Your task to perform on an android device: change keyboard looks Image 0: 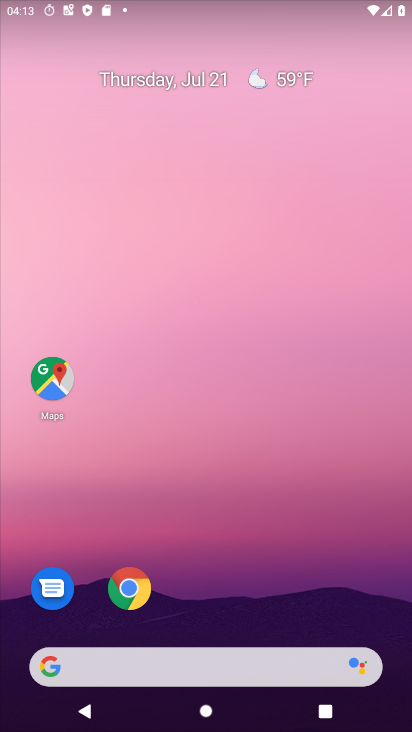
Step 0: drag from (234, 630) to (249, 129)
Your task to perform on an android device: change keyboard looks Image 1: 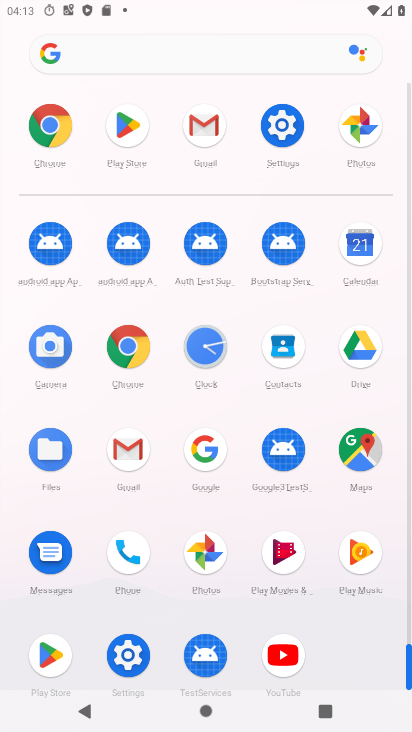
Step 1: click (124, 658)
Your task to perform on an android device: change keyboard looks Image 2: 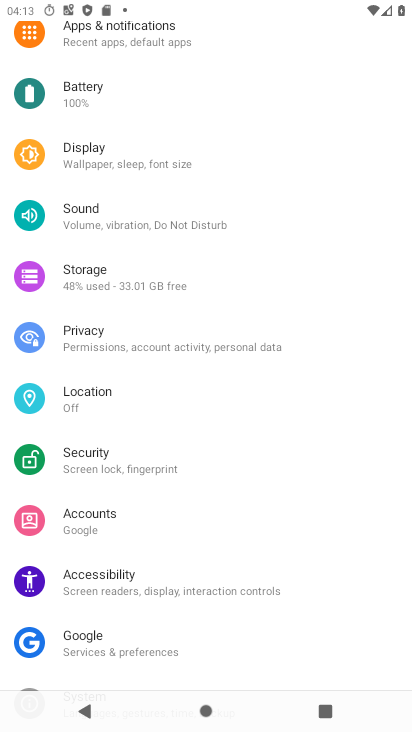
Step 2: drag from (141, 598) to (153, 347)
Your task to perform on an android device: change keyboard looks Image 3: 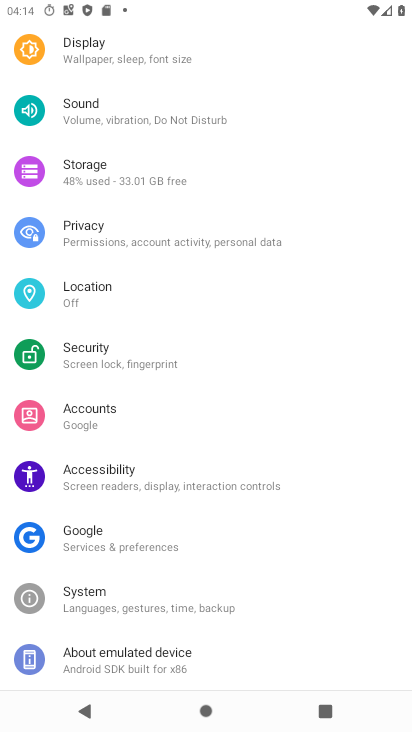
Step 3: click (92, 605)
Your task to perform on an android device: change keyboard looks Image 4: 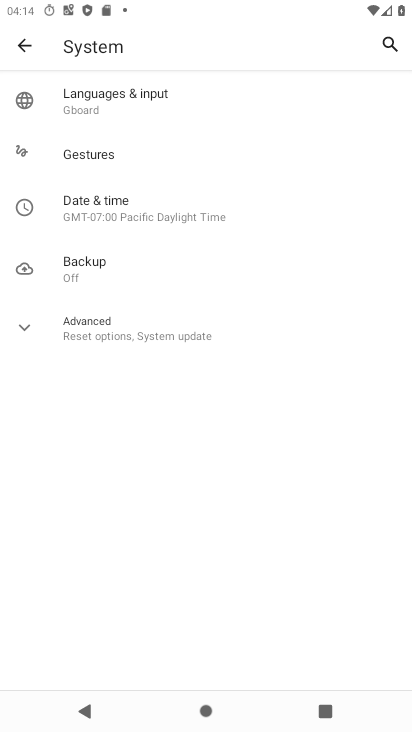
Step 4: click (126, 106)
Your task to perform on an android device: change keyboard looks Image 5: 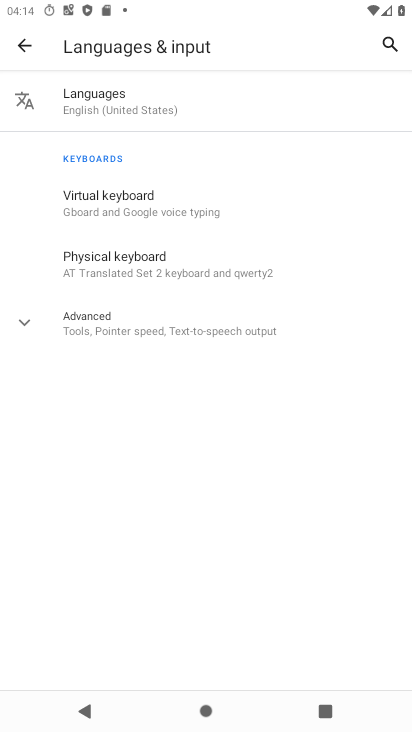
Step 5: click (128, 213)
Your task to perform on an android device: change keyboard looks Image 6: 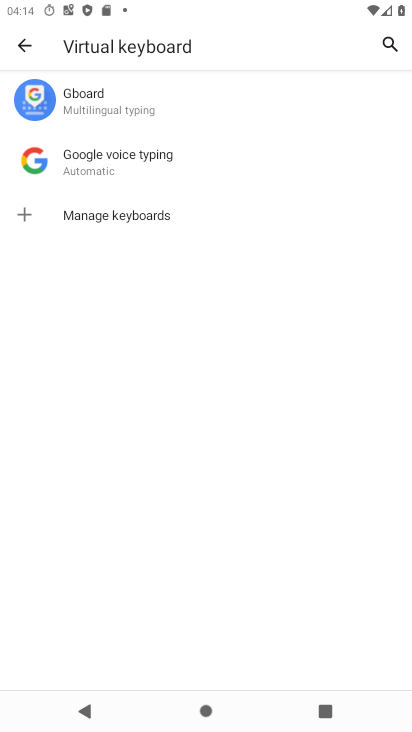
Step 6: click (116, 95)
Your task to perform on an android device: change keyboard looks Image 7: 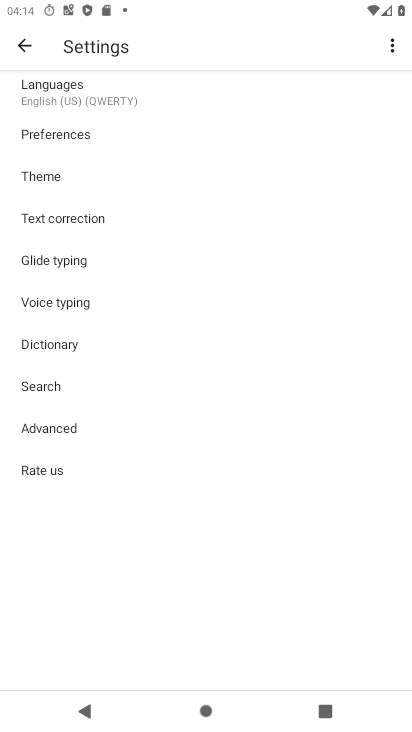
Step 7: click (46, 182)
Your task to perform on an android device: change keyboard looks Image 8: 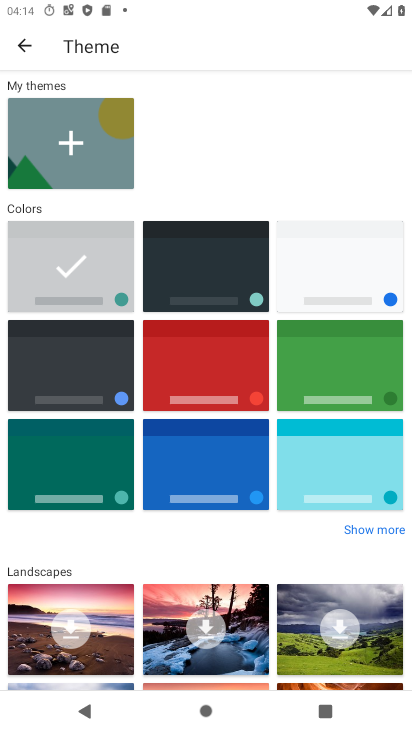
Step 8: click (201, 305)
Your task to perform on an android device: change keyboard looks Image 9: 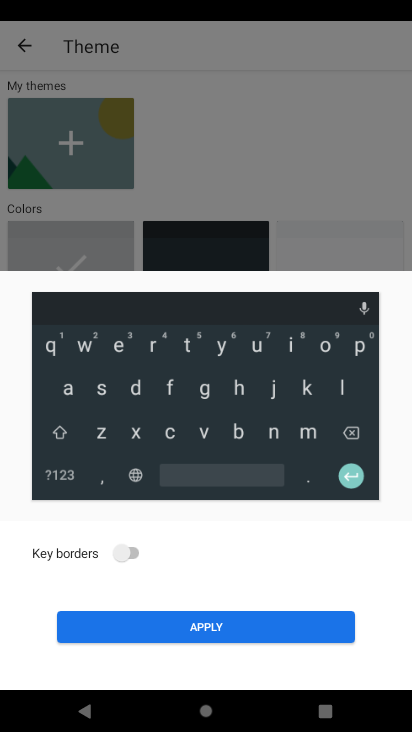
Step 9: click (253, 624)
Your task to perform on an android device: change keyboard looks Image 10: 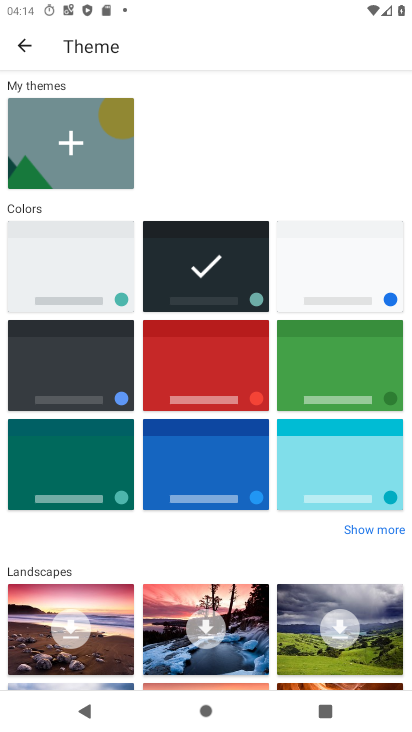
Step 10: task complete